Your task to perform on an android device: Go to Amazon Image 0: 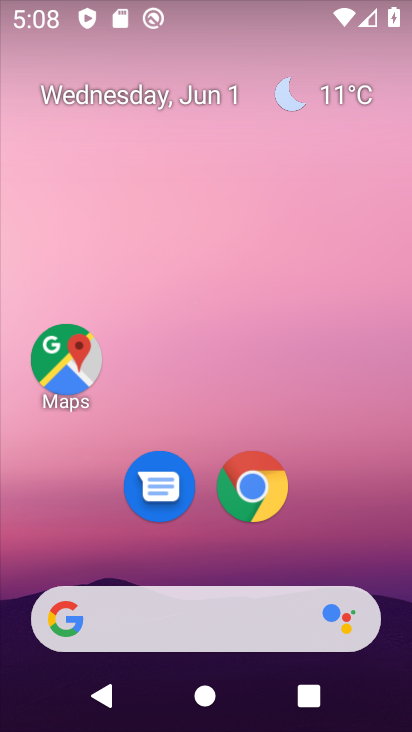
Step 0: click (267, 501)
Your task to perform on an android device: Go to Amazon Image 1: 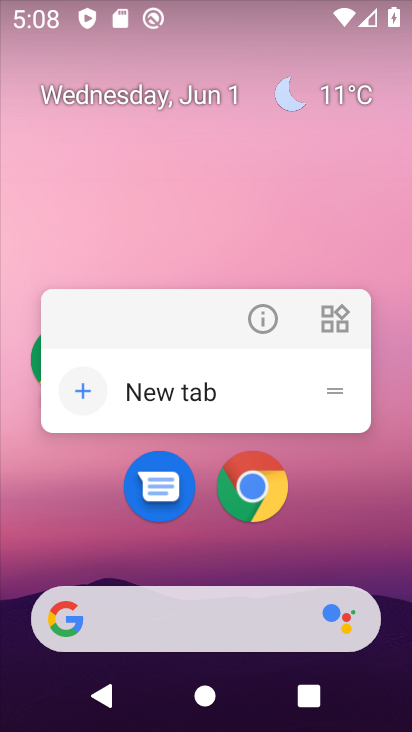
Step 1: click (267, 500)
Your task to perform on an android device: Go to Amazon Image 2: 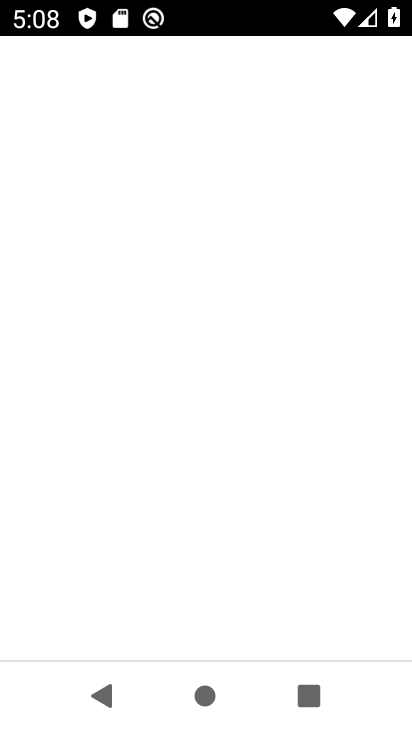
Step 2: click (265, 498)
Your task to perform on an android device: Go to Amazon Image 3: 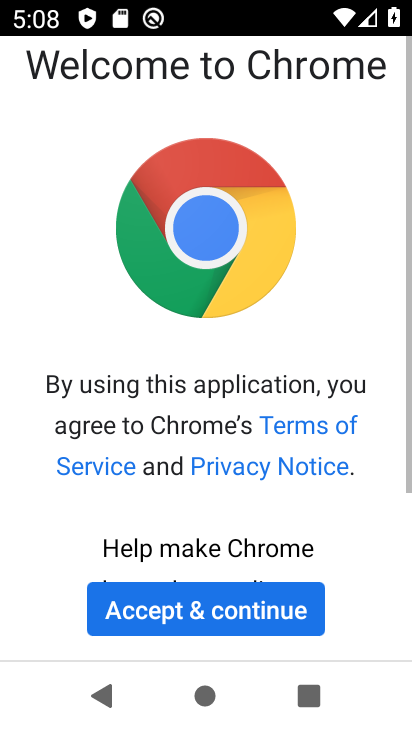
Step 3: click (286, 626)
Your task to perform on an android device: Go to Amazon Image 4: 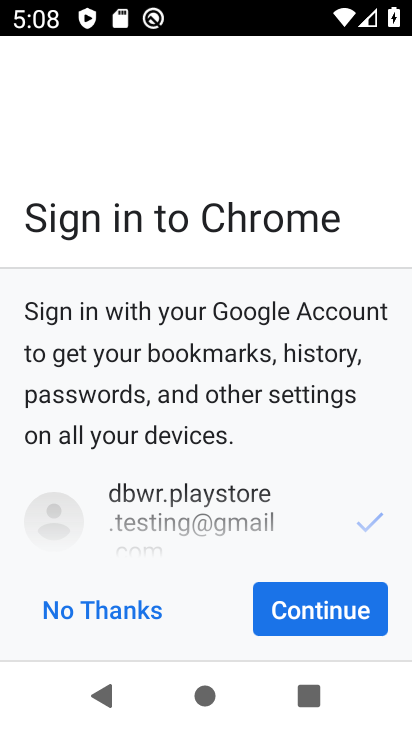
Step 4: click (320, 618)
Your task to perform on an android device: Go to Amazon Image 5: 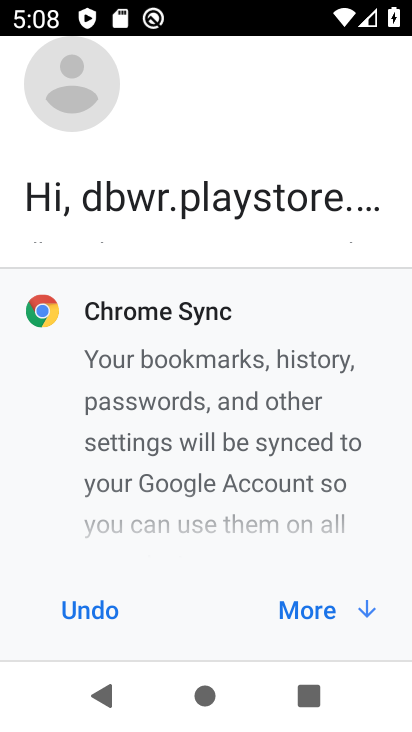
Step 5: click (349, 642)
Your task to perform on an android device: Go to Amazon Image 6: 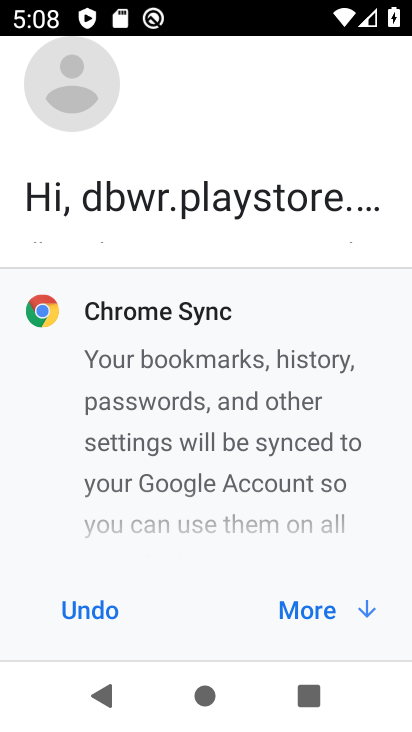
Step 6: click (332, 625)
Your task to perform on an android device: Go to Amazon Image 7: 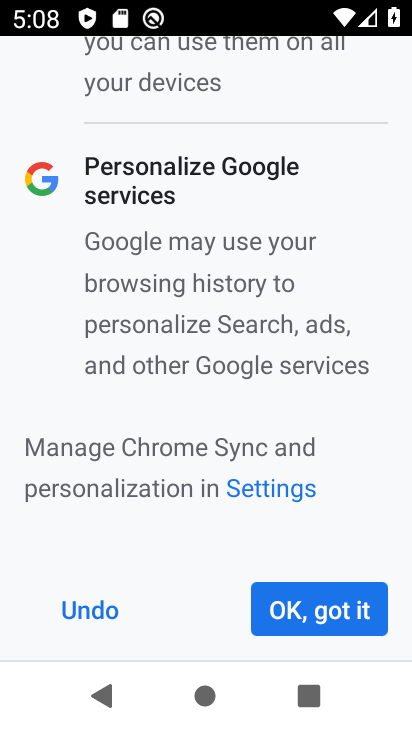
Step 7: click (333, 625)
Your task to perform on an android device: Go to Amazon Image 8: 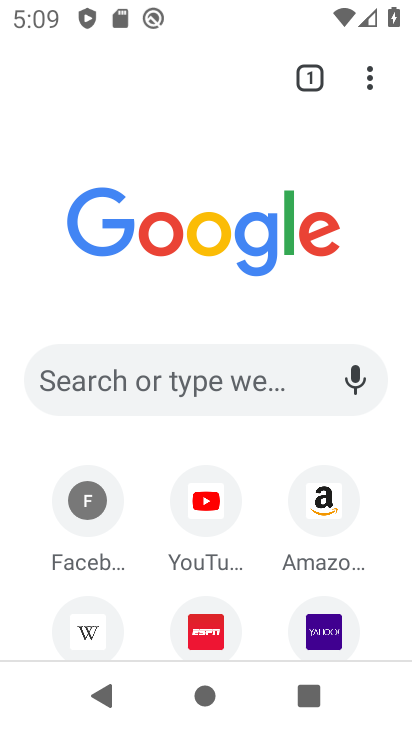
Step 8: click (339, 495)
Your task to perform on an android device: Go to Amazon Image 9: 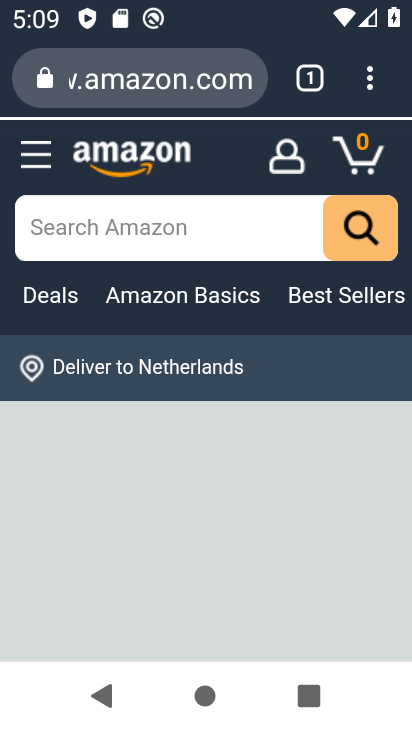
Step 9: task complete